Your task to perform on an android device: choose inbox layout in the gmail app Image 0: 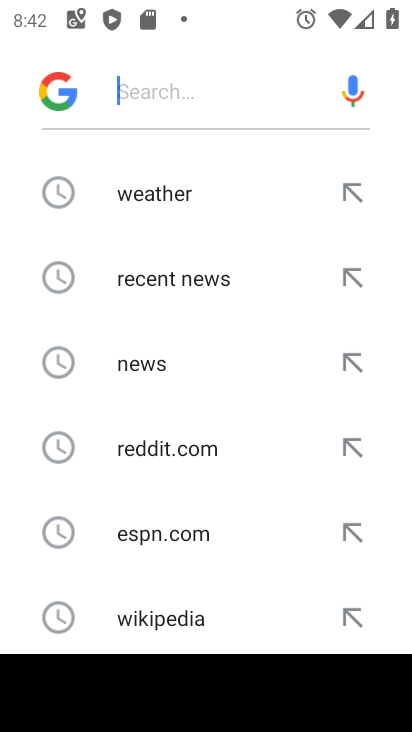
Step 0: press home button
Your task to perform on an android device: choose inbox layout in the gmail app Image 1: 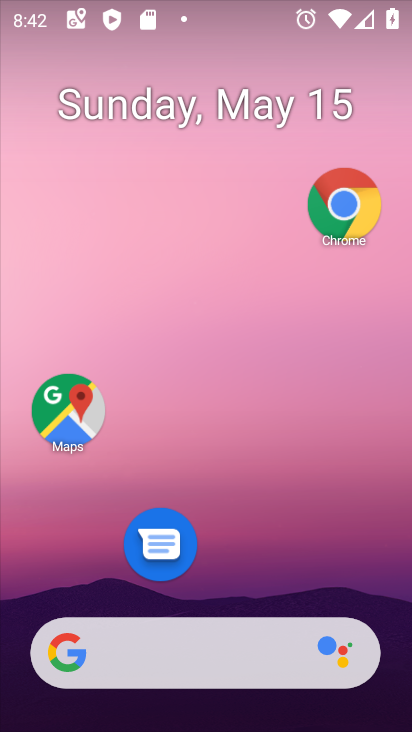
Step 1: drag from (278, 587) to (246, 65)
Your task to perform on an android device: choose inbox layout in the gmail app Image 2: 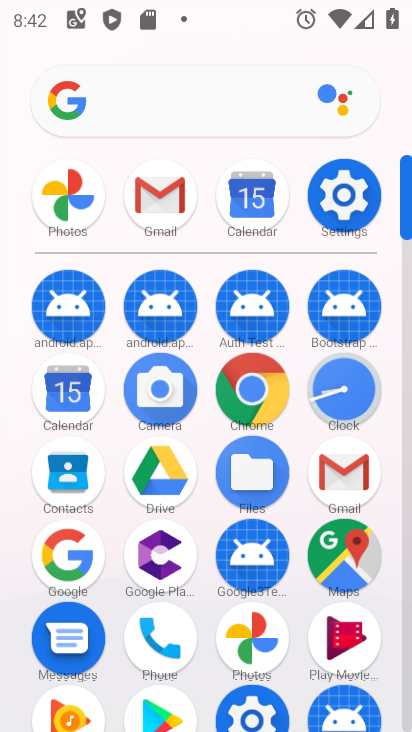
Step 2: click (336, 468)
Your task to perform on an android device: choose inbox layout in the gmail app Image 3: 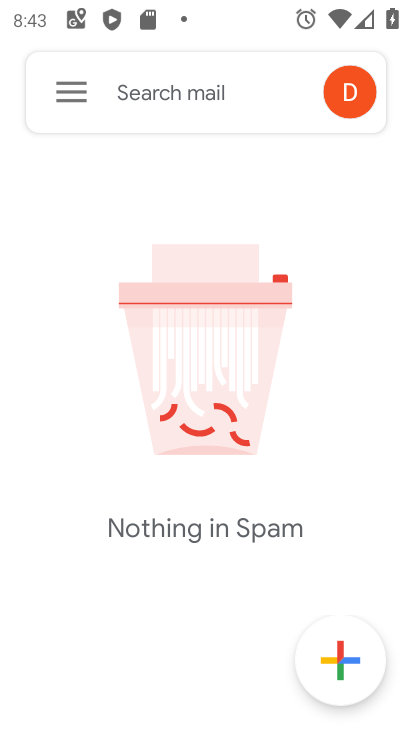
Step 3: click (78, 92)
Your task to perform on an android device: choose inbox layout in the gmail app Image 4: 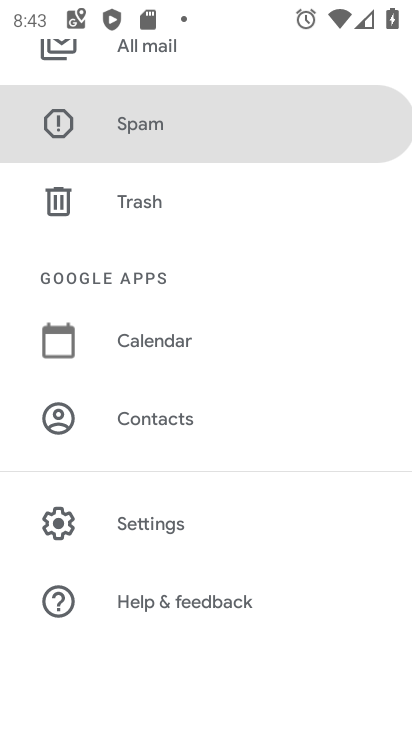
Step 4: click (199, 529)
Your task to perform on an android device: choose inbox layout in the gmail app Image 5: 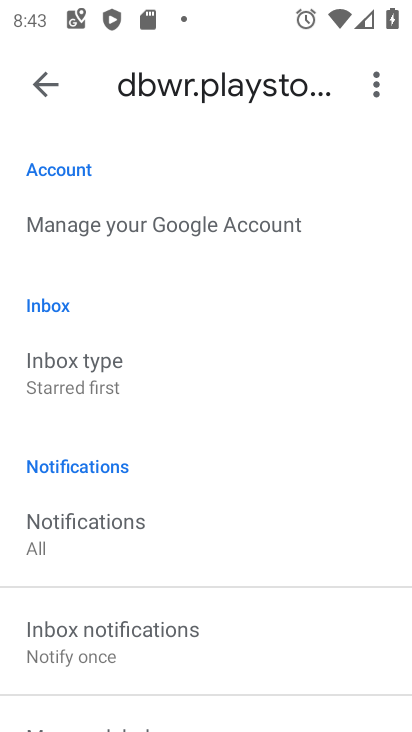
Step 5: click (98, 375)
Your task to perform on an android device: choose inbox layout in the gmail app Image 6: 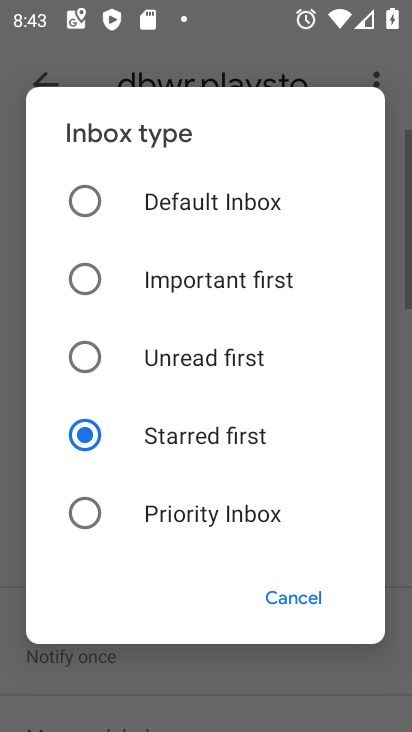
Step 6: click (218, 204)
Your task to perform on an android device: choose inbox layout in the gmail app Image 7: 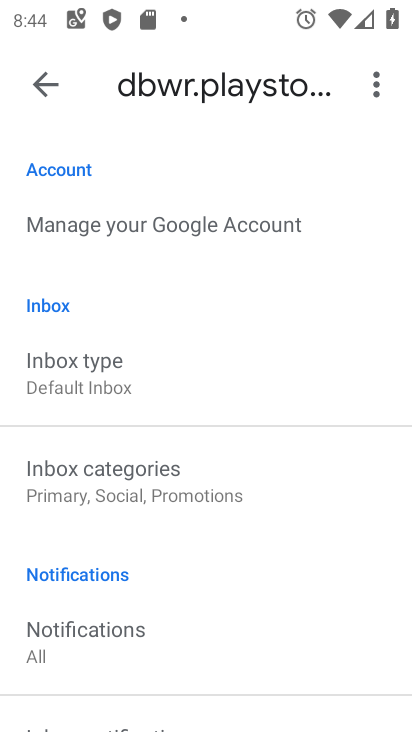
Step 7: task complete